Your task to perform on an android device: Open Android settings Image 0: 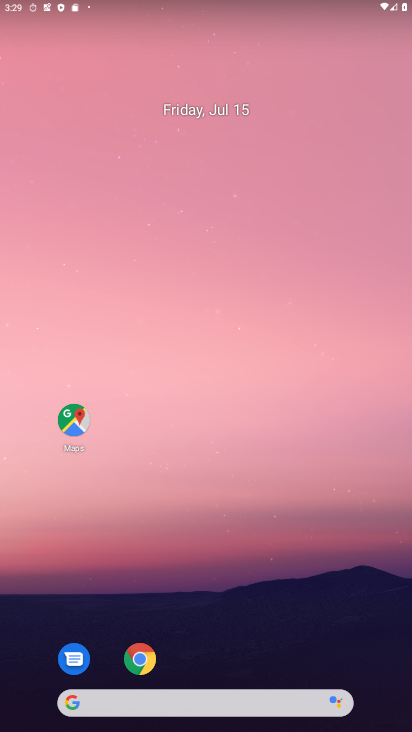
Step 0: drag from (279, 586) to (311, 31)
Your task to perform on an android device: Open Android settings Image 1: 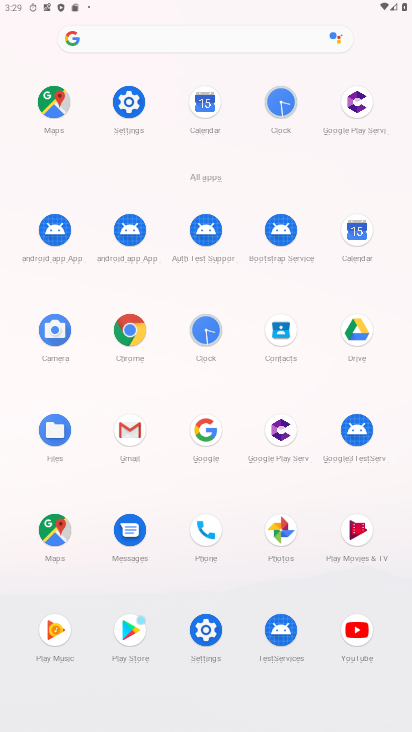
Step 1: click (121, 98)
Your task to perform on an android device: Open Android settings Image 2: 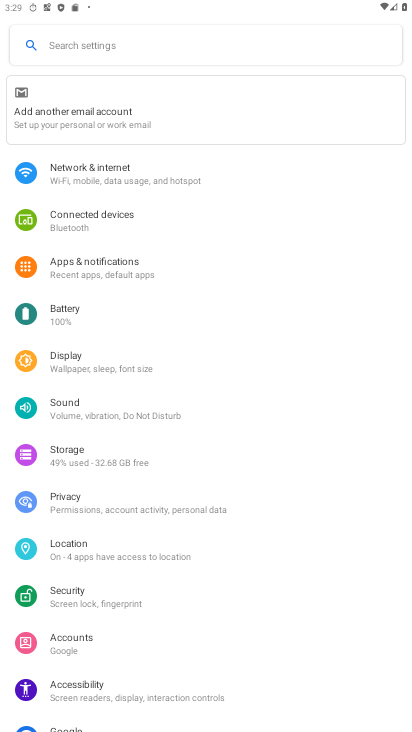
Step 2: drag from (170, 610) to (205, 174)
Your task to perform on an android device: Open Android settings Image 3: 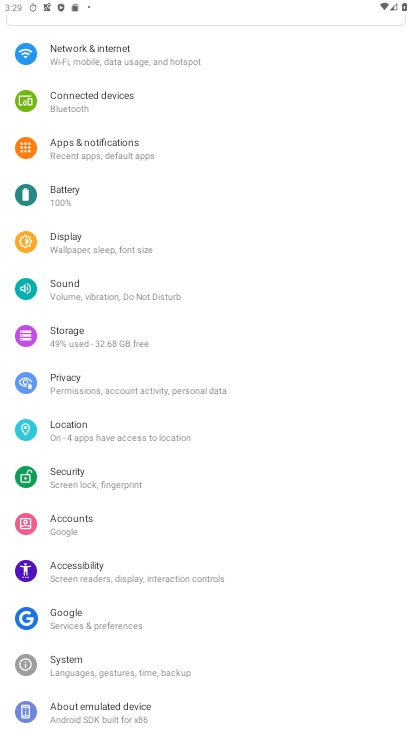
Step 3: click (126, 665)
Your task to perform on an android device: Open Android settings Image 4: 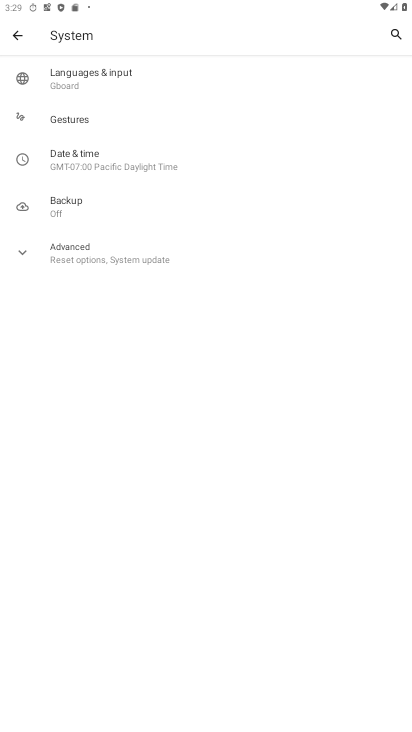
Step 4: task complete